Your task to perform on an android device: Open the map Image 0: 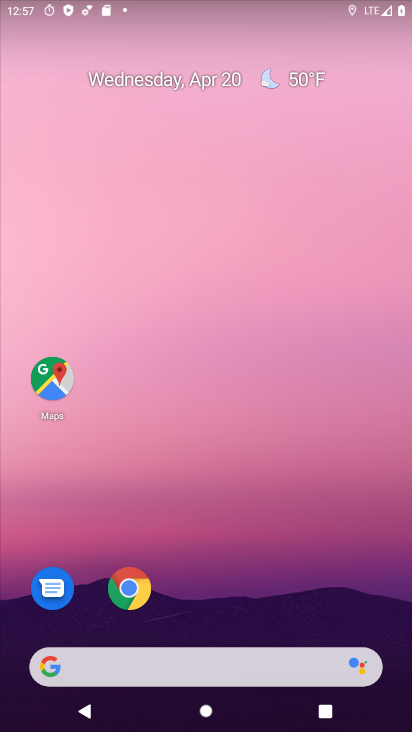
Step 0: drag from (213, 589) to (224, 29)
Your task to perform on an android device: Open the map Image 1: 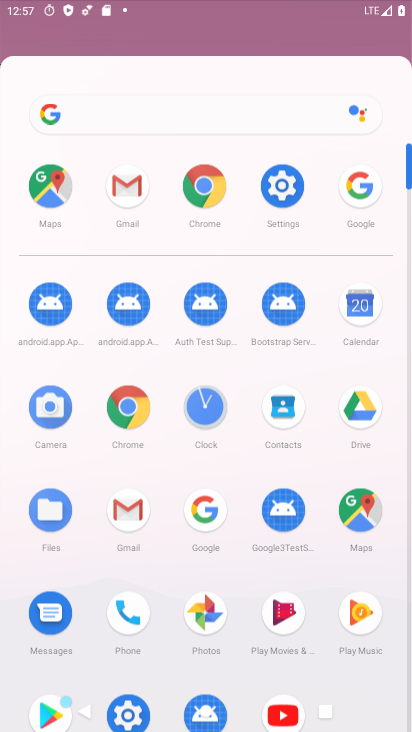
Step 1: click (50, 154)
Your task to perform on an android device: Open the map Image 2: 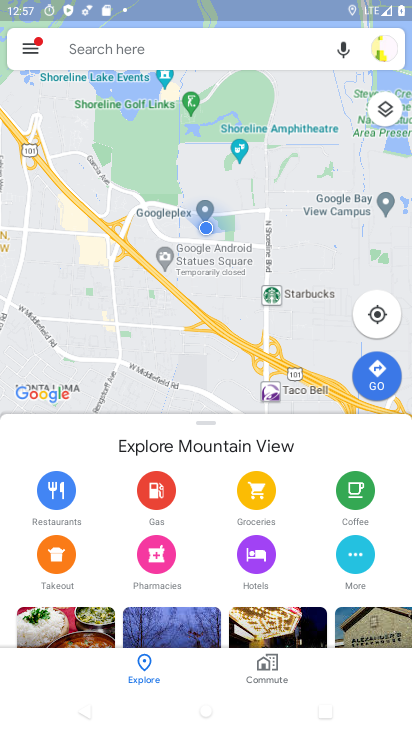
Step 2: task complete